Your task to perform on an android device: Do I have any events tomorrow? Image 0: 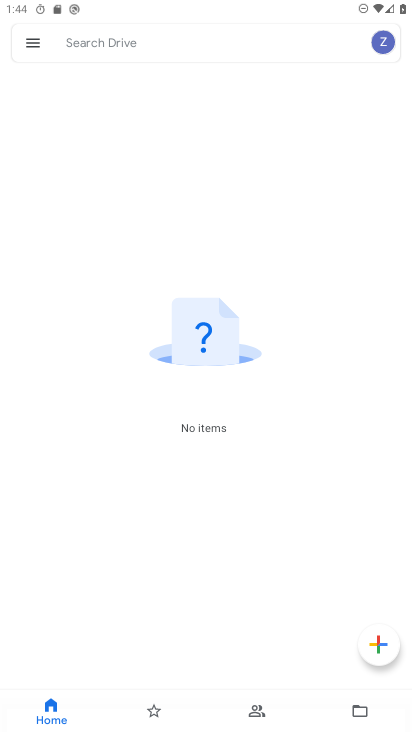
Step 0: press home button
Your task to perform on an android device: Do I have any events tomorrow? Image 1: 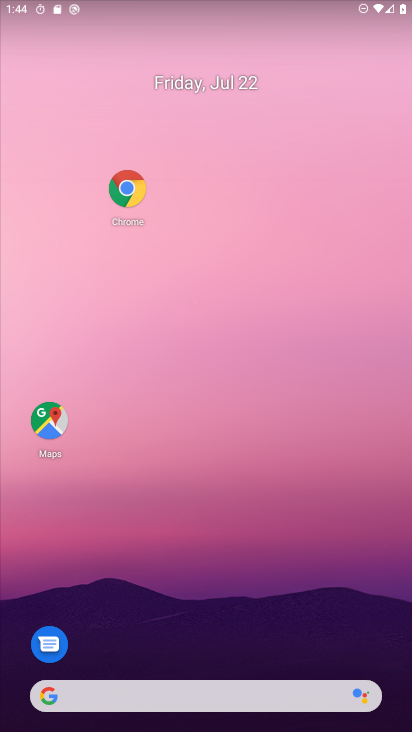
Step 1: click (200, 103)
Your task to perform on an android device: Do I have any events tomorrow? Image 2: 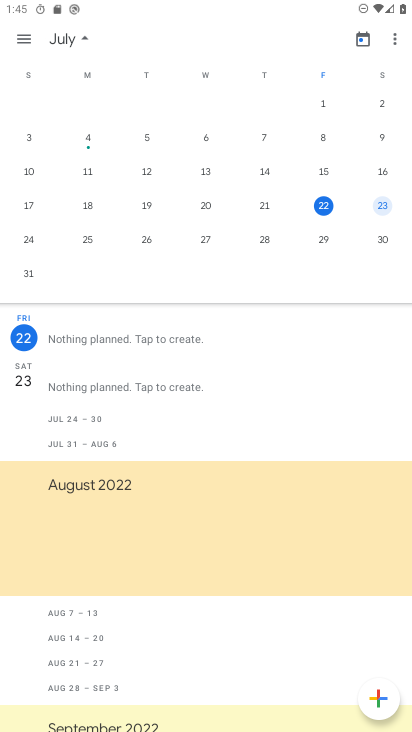
Step 2: drag from (399, 273) to (36, 262)
Your task to perform on an android device: Do I have any events tomorrow? Image 3: 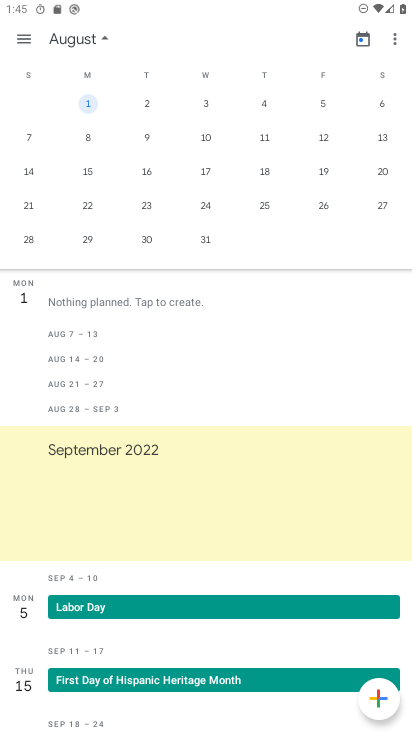
Step 3: drag from (337, 240) to (63, 250)
Your task to perform on an android device: Do I have any events tomorrow? Image 4: 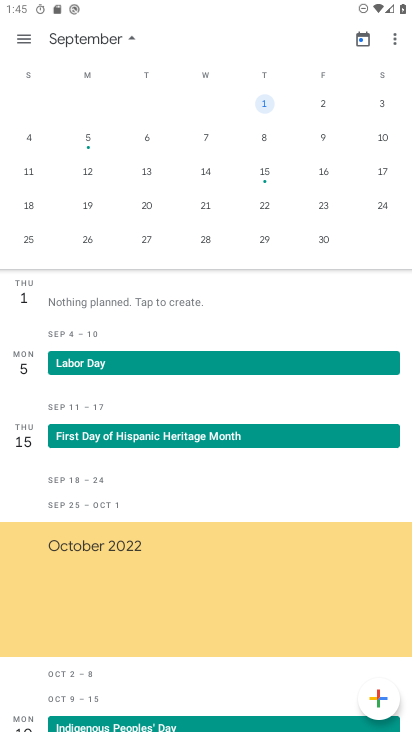
Step 4: drag from (63, 250) to (404, 259)
Your task to perform on an android device: Do I have any events tomorrow? Image 5: 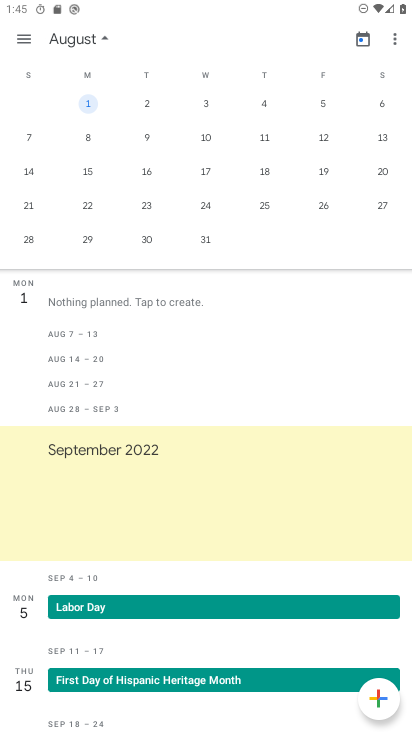
Step 5: drag from (16, 251) to (373, 288)
Your task to perform on an android device: Do I have any events tomorrow? Image 6: 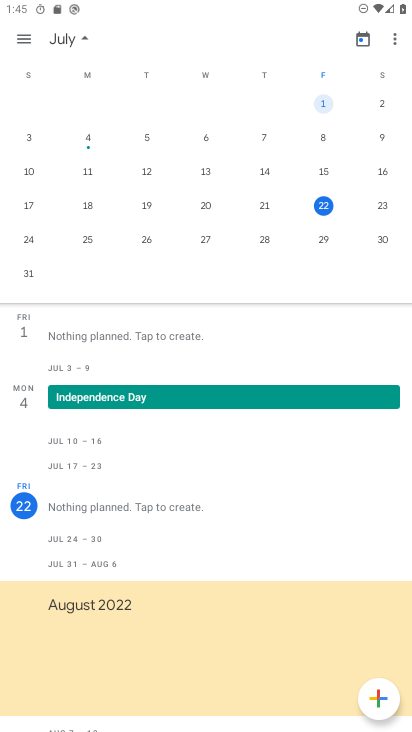
Step 6: click (342, 211)
Your task to perform on an android device: Do I have any events tomorrow? Image 7: 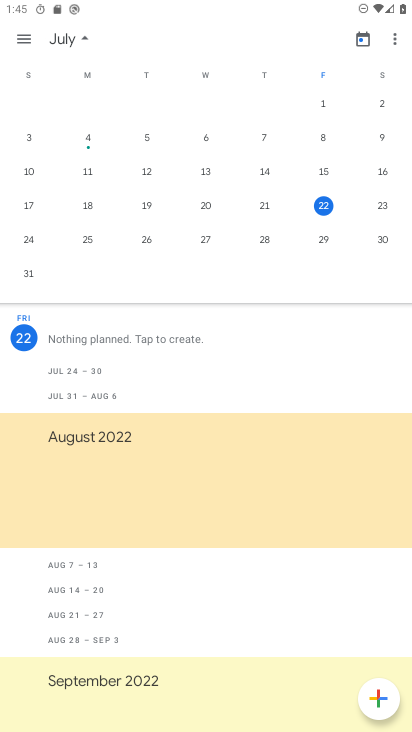
Step 7: click (377, 199)
Your task to perform on an android device: Do I have any events tomorrow? Image 8: 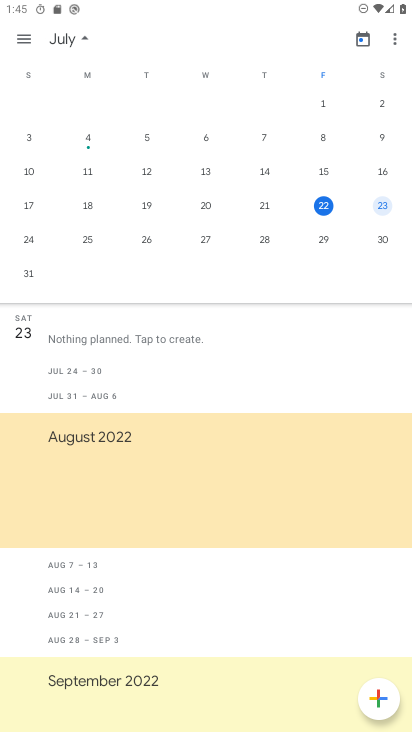
Step 8: task complete